Your task to perform on an android device: move an email to a new category in the gmail app Image 0: 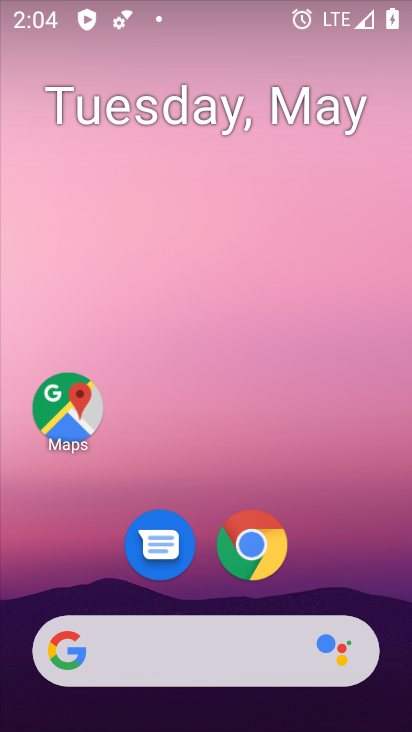
Step 0: drag from (360, 559) to (248, 2)
Your task to perform on an android device: move an email to a new category in the gmail app Image 1: 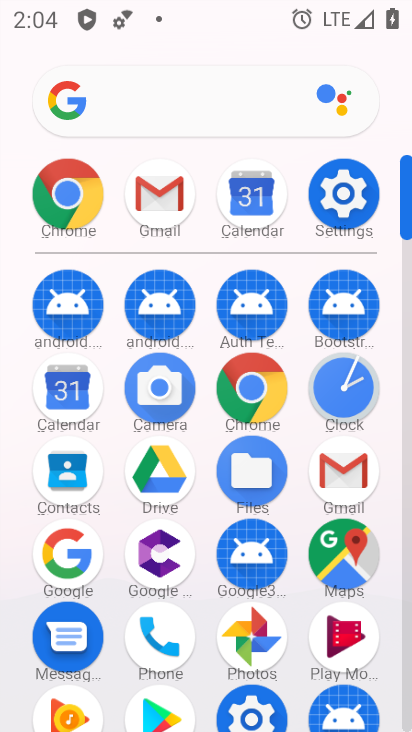
Step 1: drag from (3, 620) to (6, 189)
Your task to perform on an android device: move an email to a new category in the gmail app Image 2: 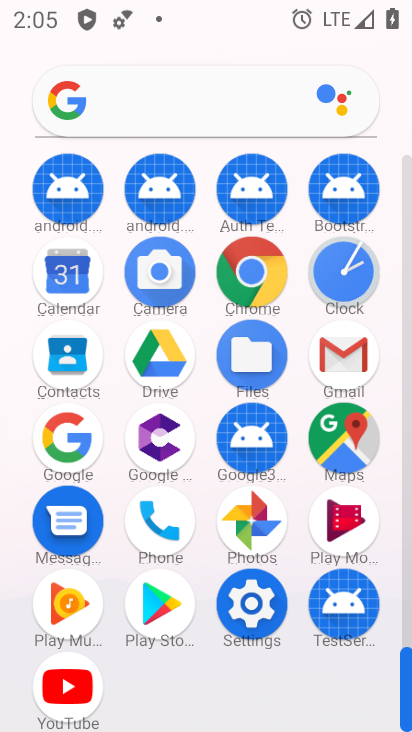
Step 2: click (345, 351)
Your task to perform on an android device: move an email to a new category in the gmail app Image 3: 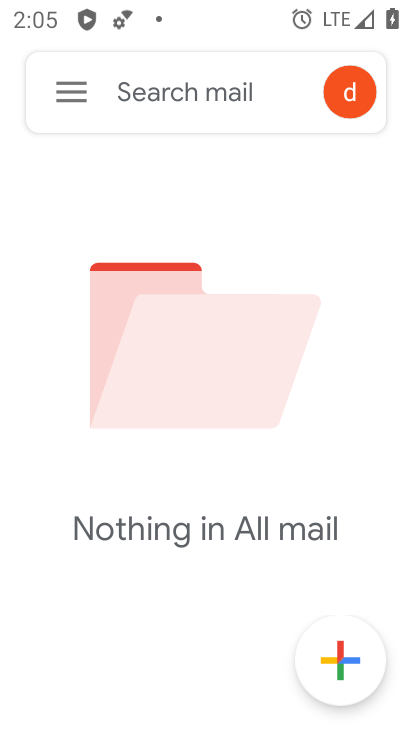
Step 3: click (66, 80)
Your task to perform on an android device: move an email to a new category in the gmail app Image 4: 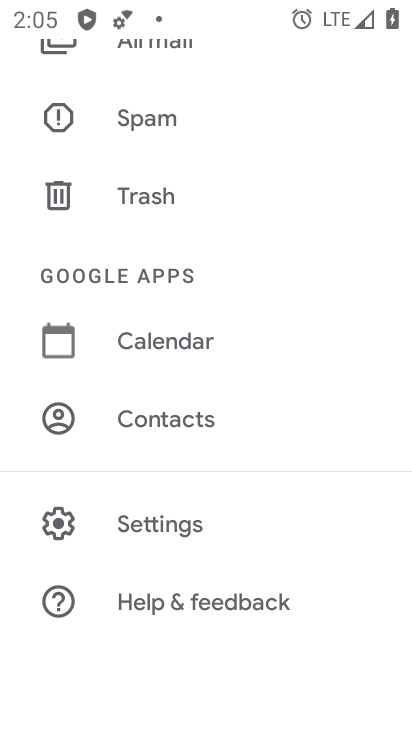
Step 4: drag from (187, 125) to (280, 589)
Your task to perform on an android device: move an email to a new category in the gmail app Image 5: 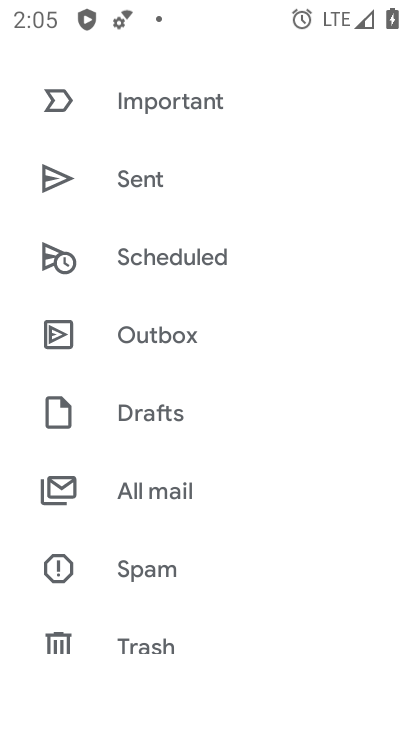
Step 5: drag from (249, 138) to (280, 554)
Your task to perform on an android device: move an email to a new category in the gmail app Image 6: 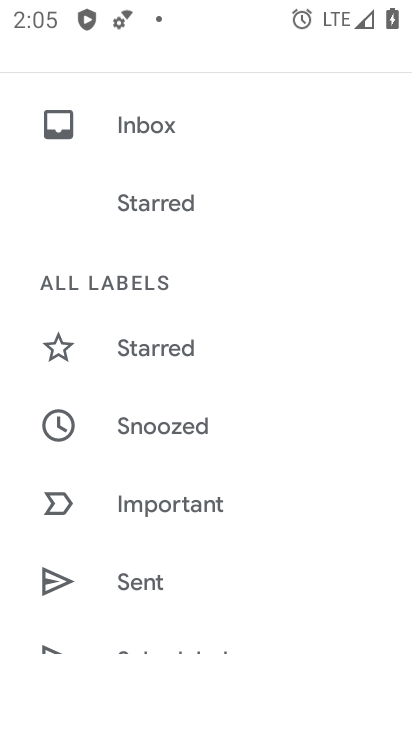
Step 6: click (196, 337)
Your task to perform on an android device: move an email to a new category in the gmail app Image 7: 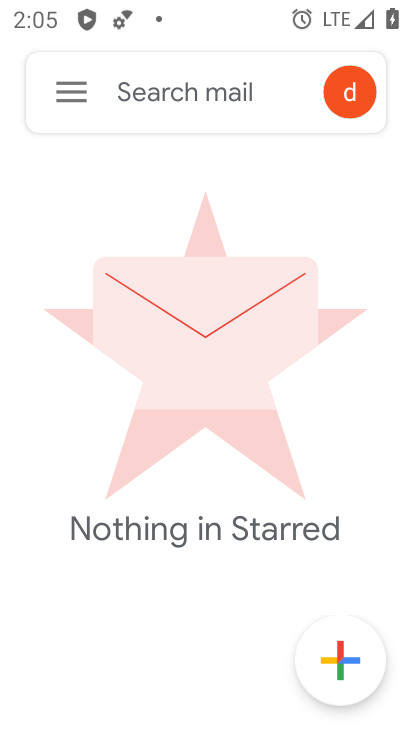
Step 7: click (71, 77)
Your task to perform on an android device: move an email to a new category in the gmail app Image 8: 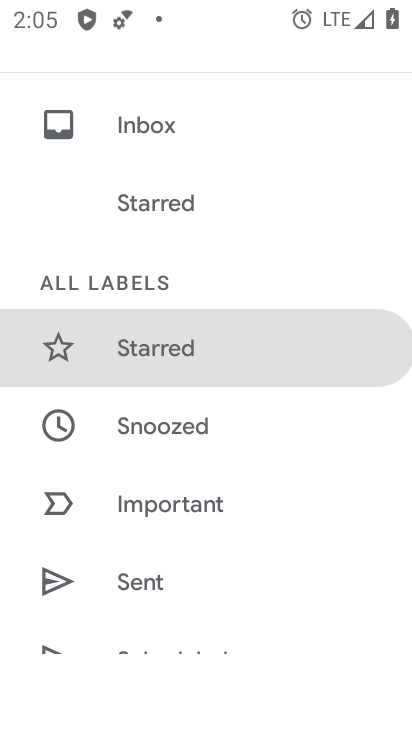
Step 8: drag from (242, 617) to (261, 82)
Your task to perform on an android device: move an email to a new category in the gmail app Image 9: 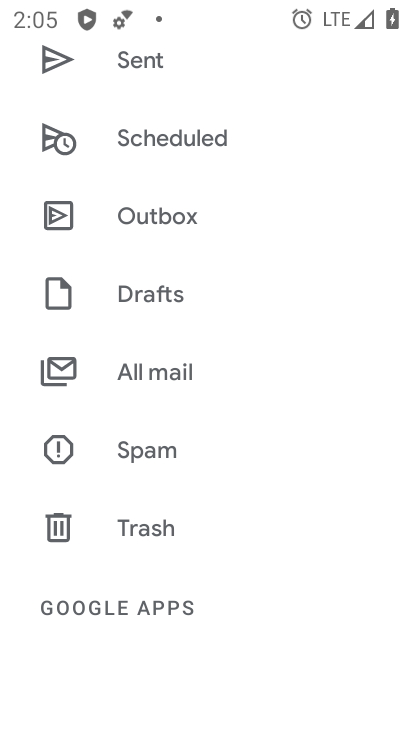
Step 9: click (205, 371)
Your task to perform on an android device: move an email to a new category in the gmail app Image 10: 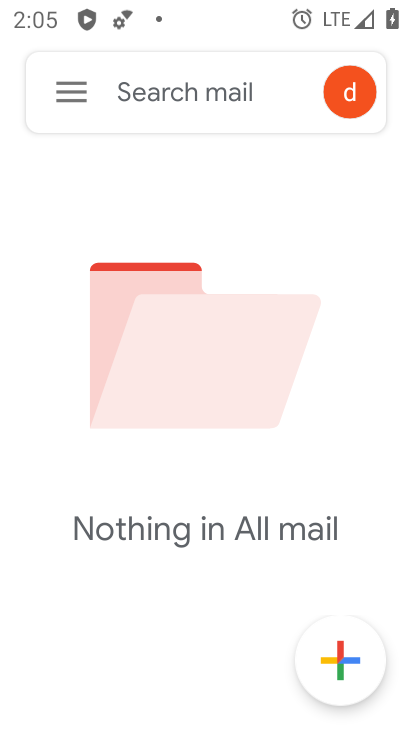
Step 10: task complete